Your task to perform on an android device: turn on location history Image 0: 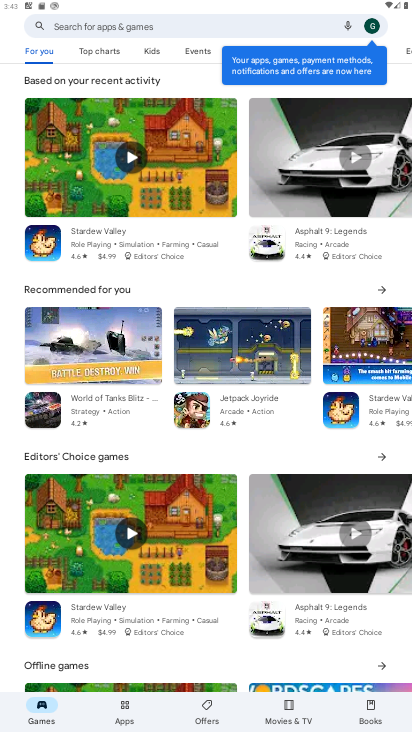
Step 0: press home button
Your task to perform on an android device: turn on location history Image 1: 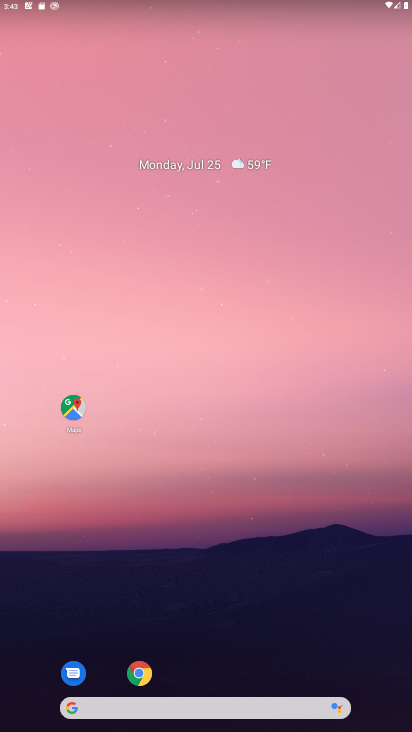
Step 1: drag from (272, 635) to (222, 179)
Your task to perform on an android device: turn on location history Image 2: 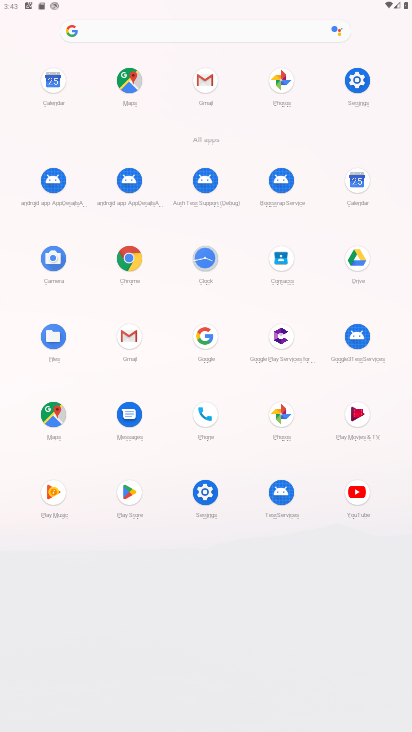
Step 2: click (207, 487)
Your task to perform on an android device: turn on location history Image 3: 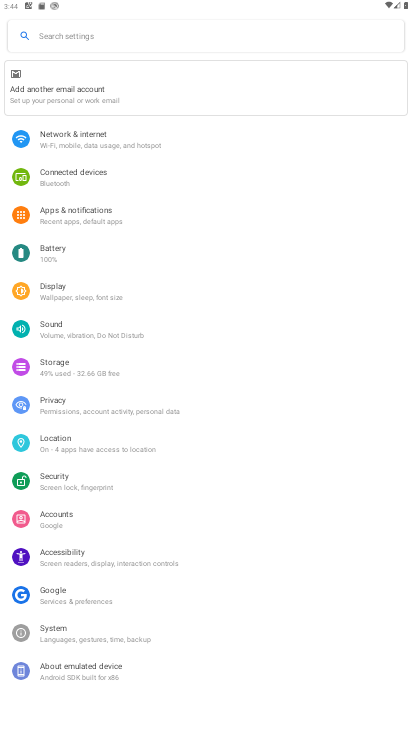
Step 3: click (127, 438)
Your task to perform on an android device: turn on location history Image 4: 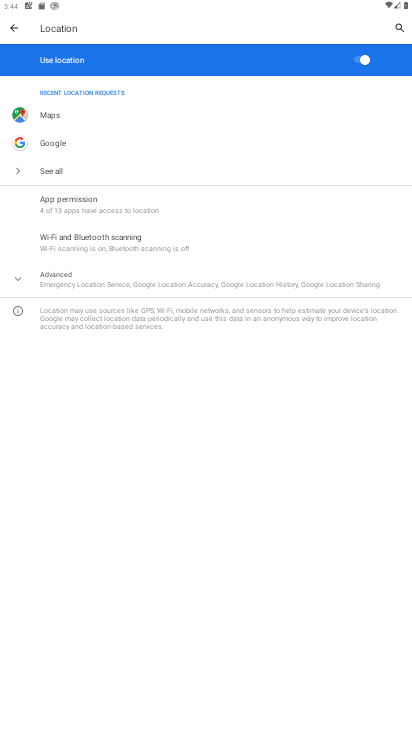
Step 4: click (85, 274)
Your task to perform on an android device: turn on location history Image 5: 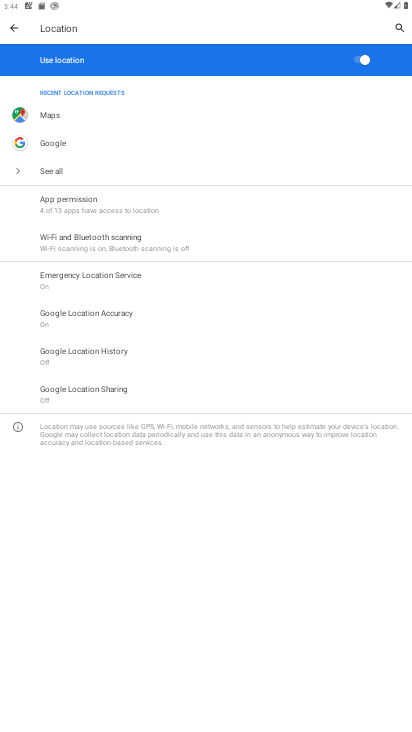
Step 5: click (124, 352)
Your task to perform on an android device: turn on location history Image 6: 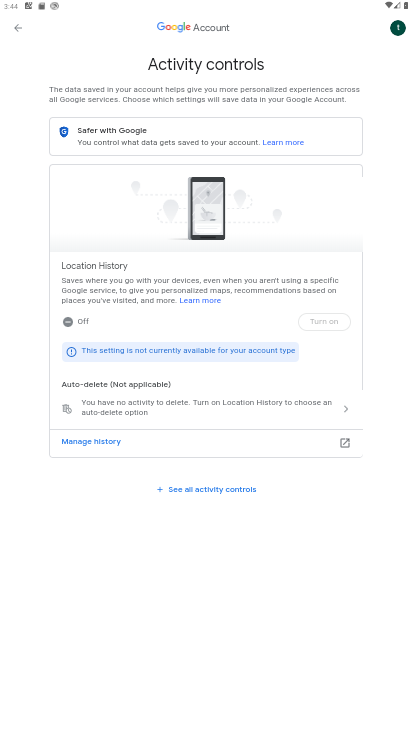
Step 6: task complete